Your task to perform on an android device: Show me popular videos on Youtube Image 0: 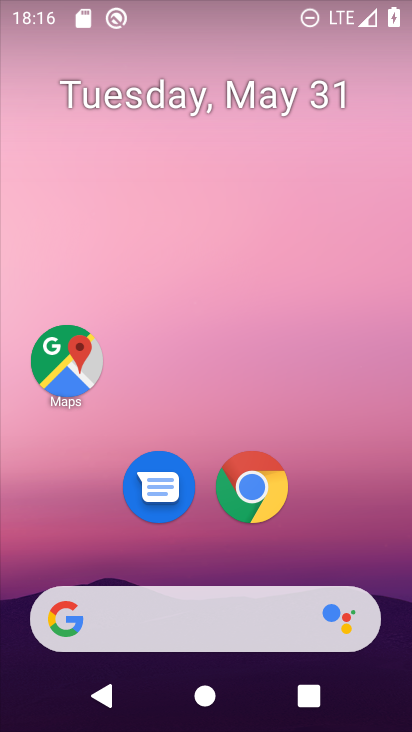
Step 0: drag from (331, 548) to (190, 192)
Your task to perform on an android device: Show me popular videos on Youtube Image 1: 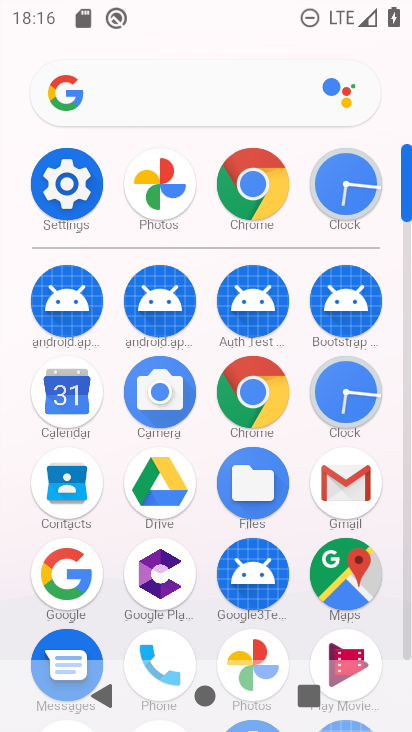
Step 1: drag from (204, 581) to (149, 181)
Your task to perform on an android device: Show me popular videos on Youtube Image 2: 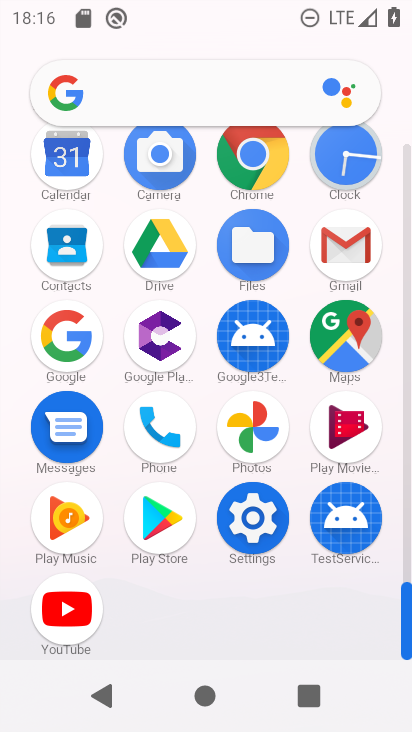
Step 2: click (80, 628)
Your task to perform on an android device: Show me popular videos on Youtube Image 3: 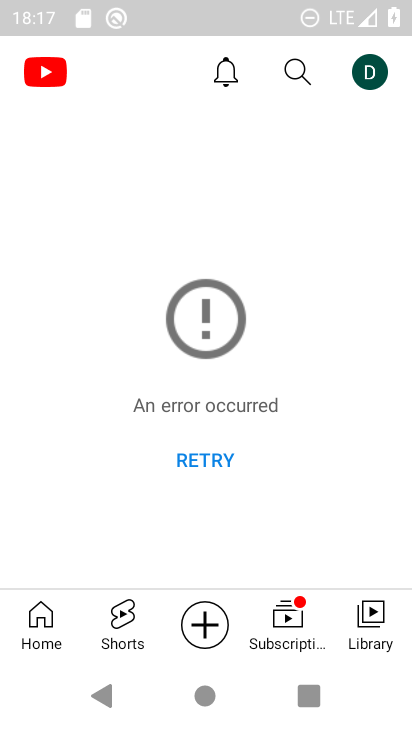
Step 3: click (120, 616)
Your task to perform on an android device: Show me popular videos on Youtube Image 4: 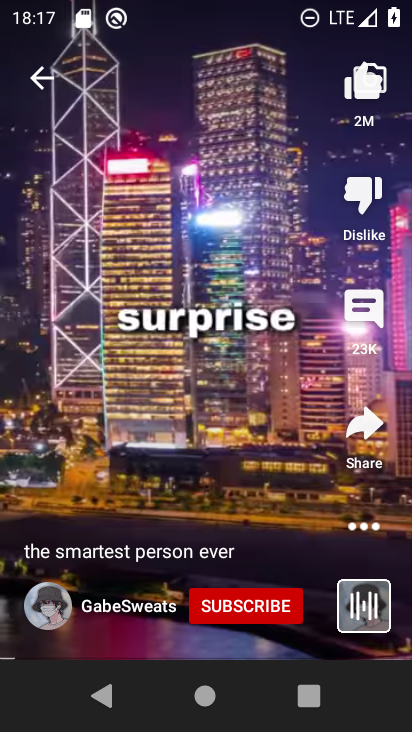
Step 4: task complete